Your task to perform on an android device: empty trash in google photos Image 0: 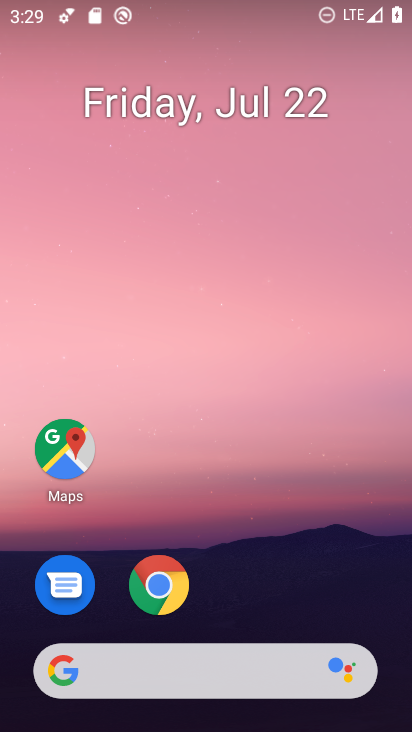
Step 0: drag from (281, 553) to (237, 65)
Your task to perform on an android device: empty trash in google photos Image 1: 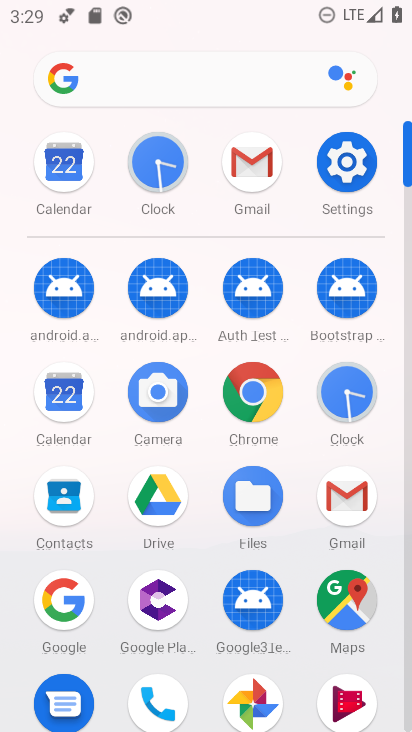
Step 1: drag from (202, 503) to (200, 264)
Your task to perform on an android device: empty trash in google photos Image 2: 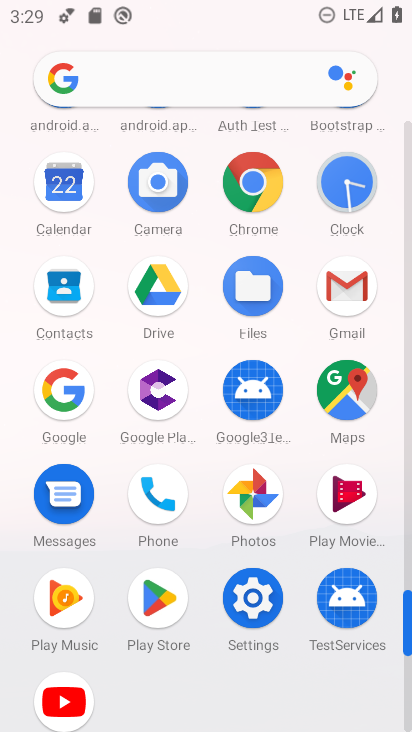
Step 2: click (244, 488)
Your task to perform on an android device: empty trash in google photos Image 3: 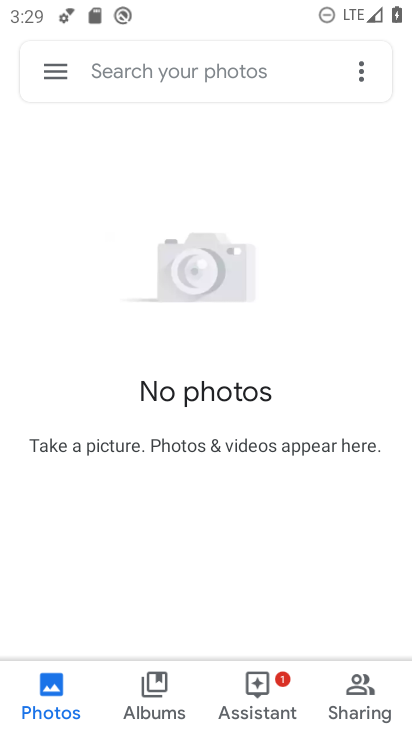
Step 3: click (51, 63)
Your task to perform on an android device: empty trash in google photos Image 4: 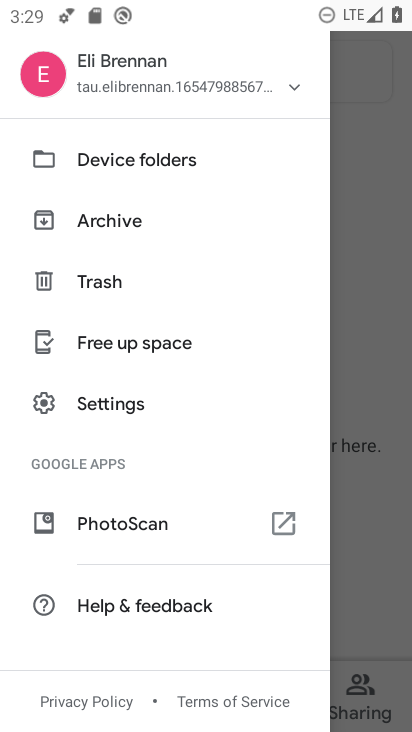
Step 4: click (98, 284)
Your task to perform on an android device: empty trash in google photos Image 5: 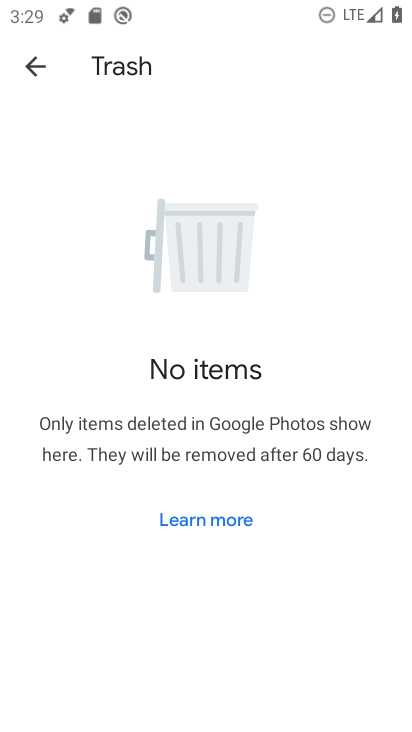
Step 5: task complete